Your task to perform on an android device: Open the calendar and show me this week's events Image 0: 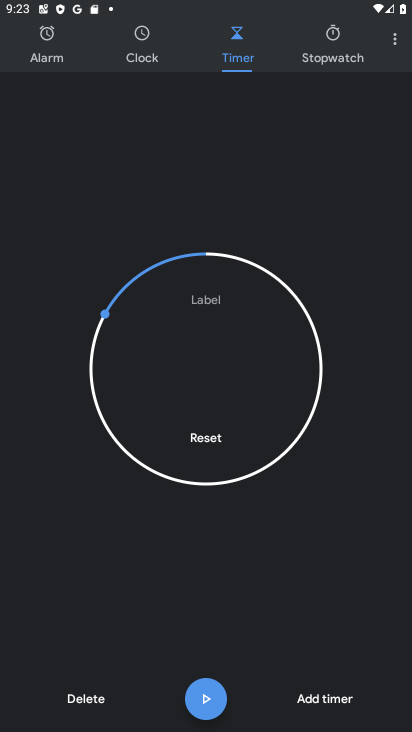
Step 0: press back button
Your task to perform on an android device: Open the calendar and show me this week's events Image 1: 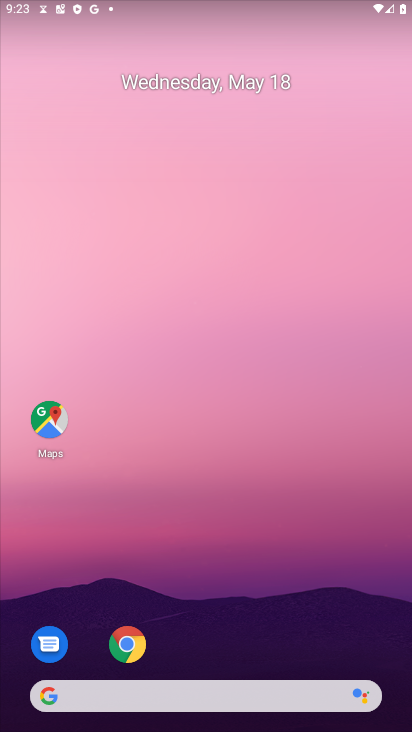
Step 1: drag from (226, 622) to (326, 6)
Your task to perform on an android device: Open the calendar and show me this week's events Image 2: 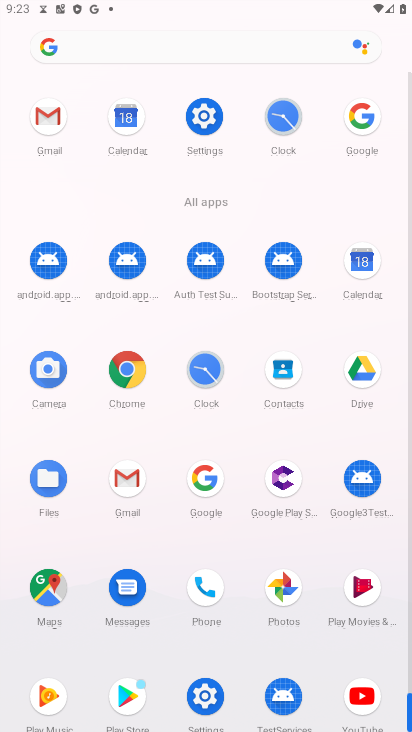
Step 2: click (360, 262)
Your task to perform on an android device: Open the calendar and show me this week's events Image 3: 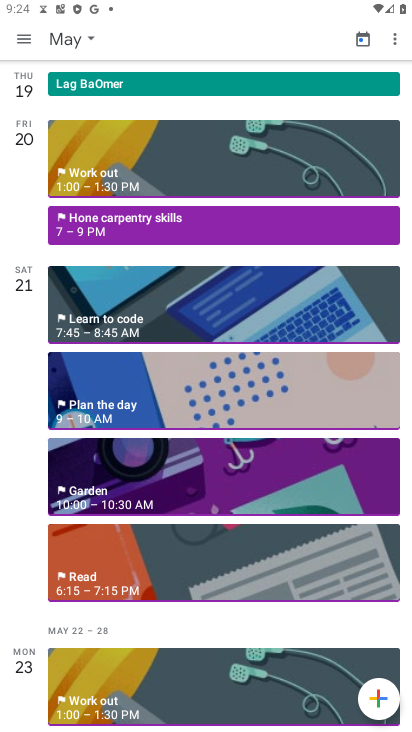
Step 3: task complete